Your task to perform on an android device: Search for sushi restaurants on Maps Image 0: 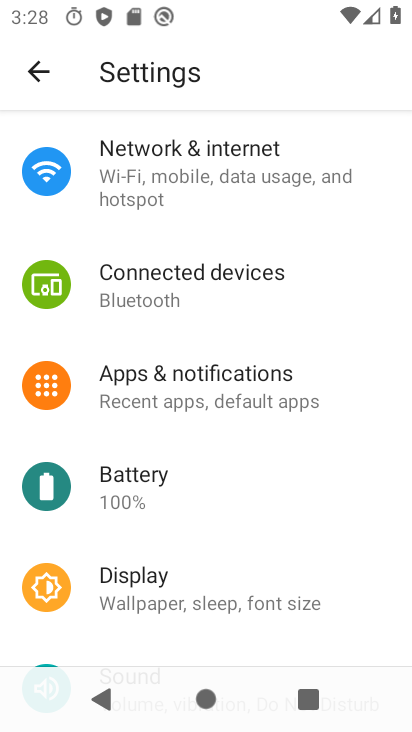
Step 0: press home button
Your task to perform on an android device: Search for sushi restaurants on Maps Image 1: 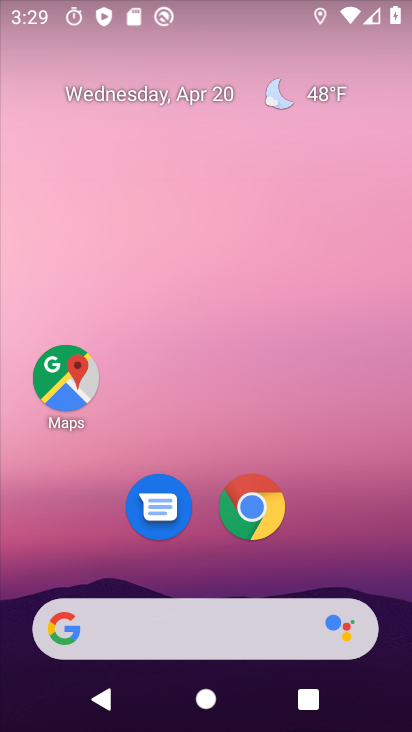
Step 1: drag from (219, 645) to (264, 313)
Your task to perform on an android device: Search for sushi restaurants on Maps Image 2: 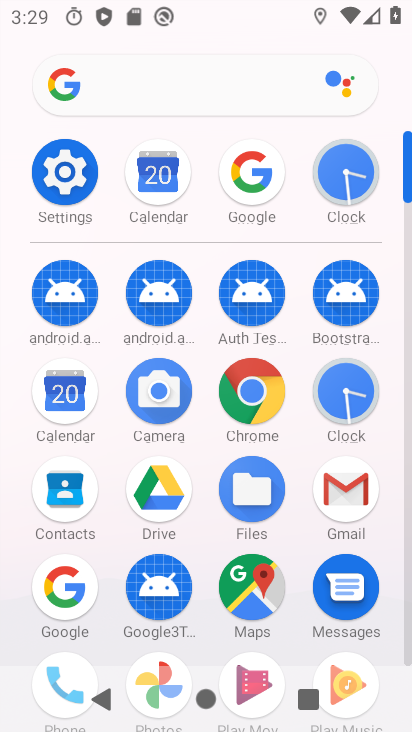
Step 2: click (257, 571)
Your task to perform on an android device: Search for sushi restaurants on Maps Image 3: 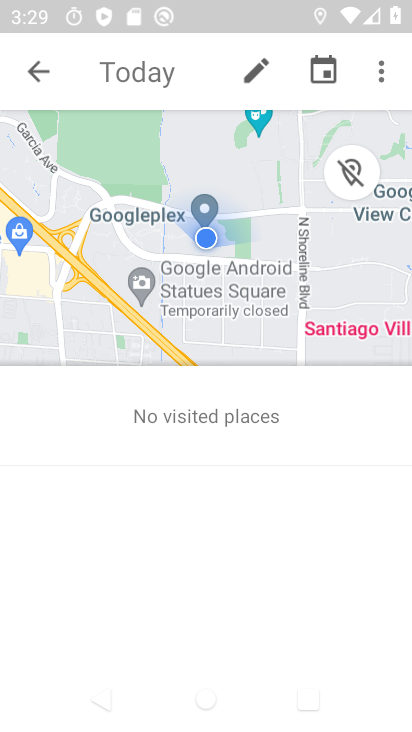
Step 3: press back button
Your task to perform on an android device: Search for sushi restaurants on Maps Image 4: 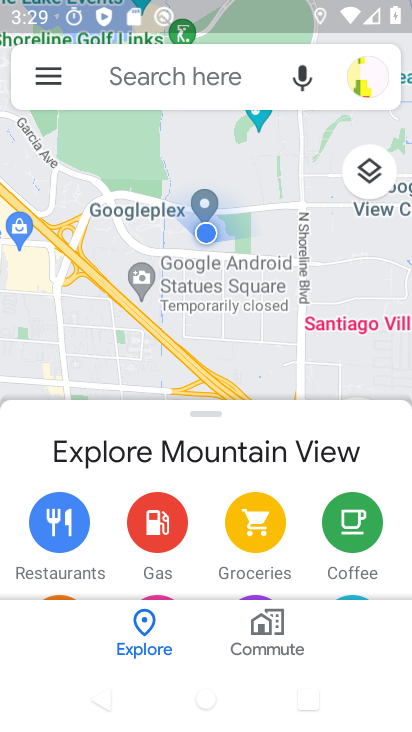
Step 4: click (225, 81)
Your task to perform on an android device: Search for sushi restaurants on Maps Image 5: 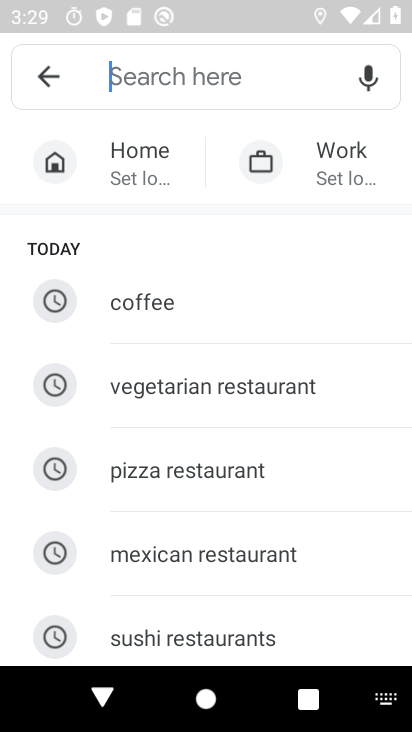
Step 5: click (207, 619)
Your task to perform on an android device: Search for sushi restaurants on Maps Image 6: 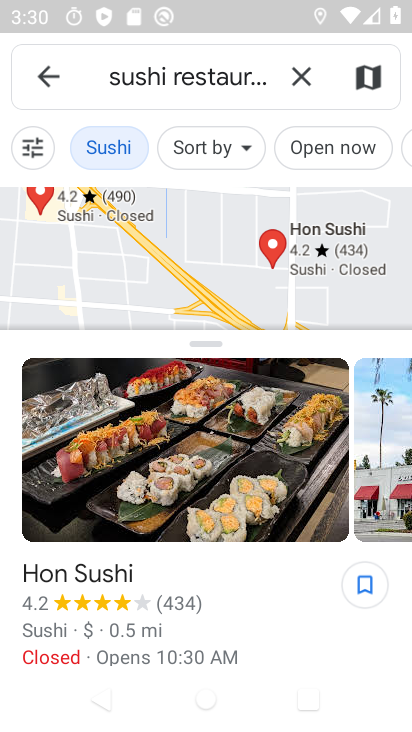
Step 6: task complete